Your task to perform on an android device: check the backup settings in the google photos Image 0: 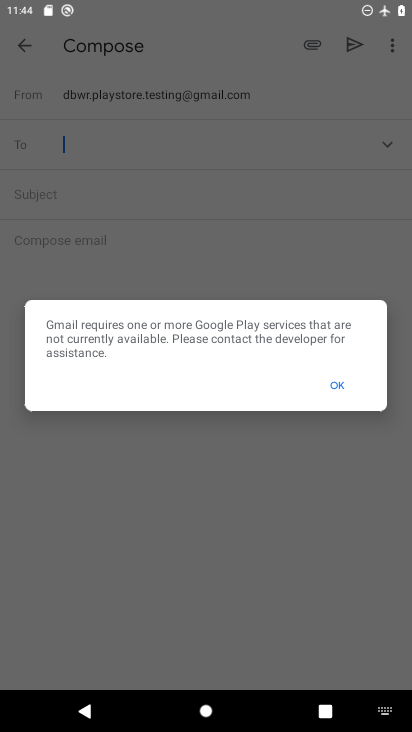
Step 0: press home button
Your task to perform on an android device: check the backup settings in the google photos Image 1: 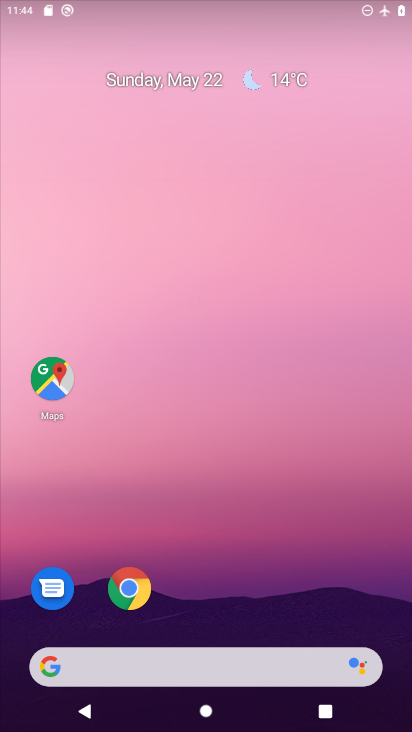
Step 1: drag from (248, 619) to (249, 188)
Your task to perform on an android device: check the backup settings in the google photos Image 2: 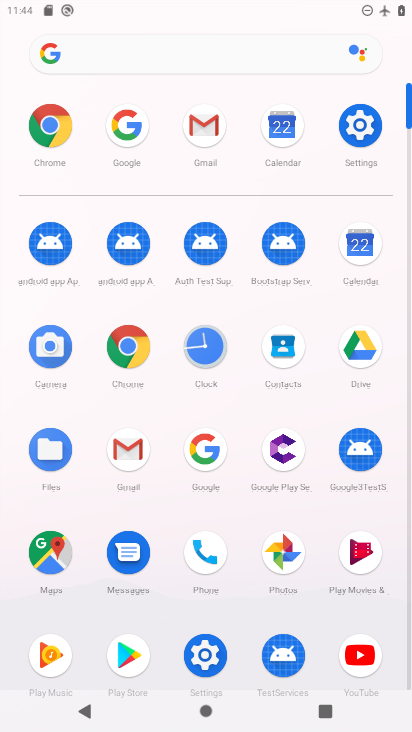
Step 2: click (280, 532)
Your task to perform on an android device: check the backup settings in the google photos Image 3: 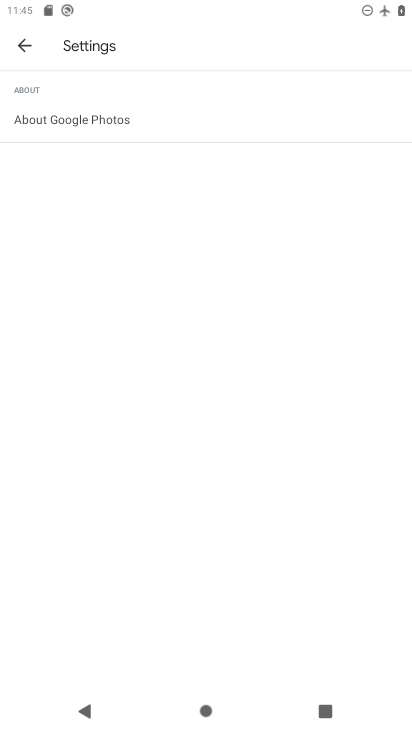
Step 3: click (28, 56)
Your task to perform on an android device: check the backup settings in the google photos Image 4: 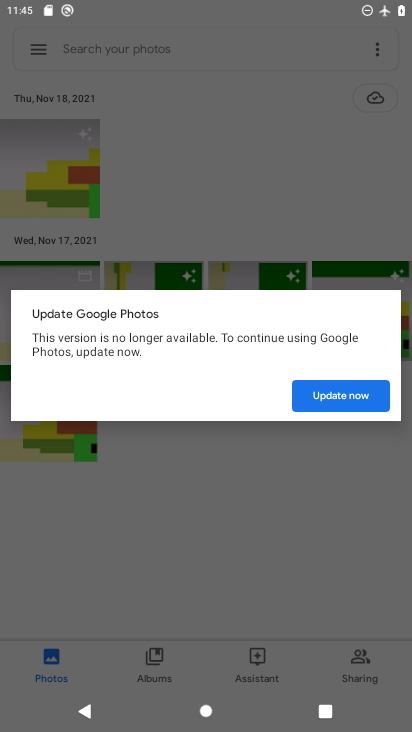
Step 4: click (306, 380)
Your task to perform on an android device: check the backup settings in the google photos Image 5: 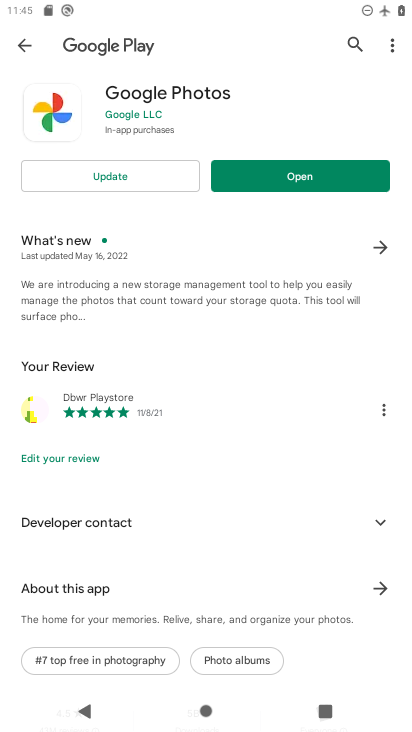
Step 5: click (248, 176)
Your task to perform on an android device: check the backup settings in the google photos Image 6: 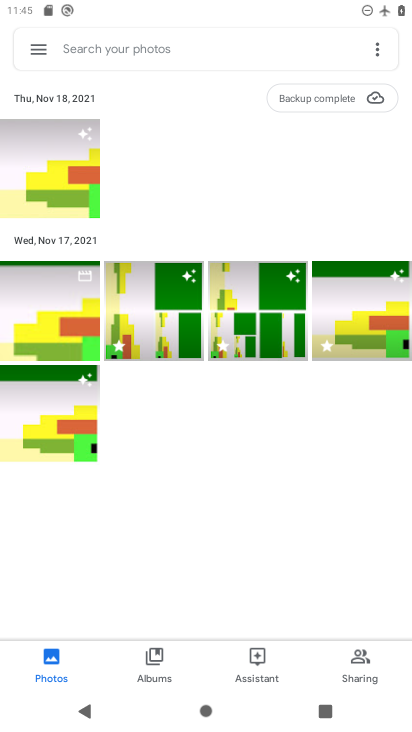
Step 6: click (37, 55)
Your task to perform on an android device: check the backup settings in the google photos Image 7: 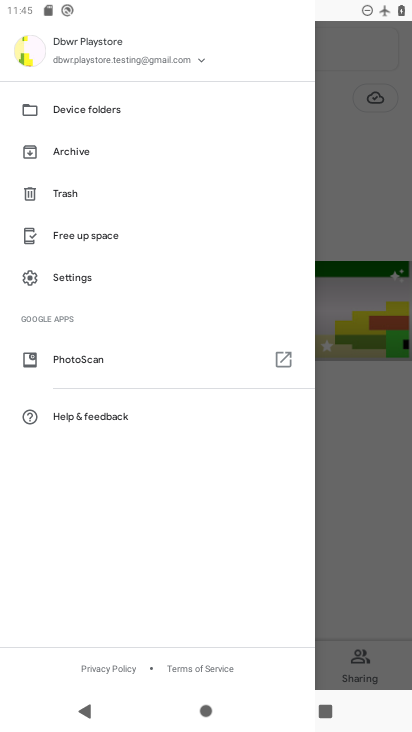
Step 7: click (103, 358)
Your task to perform on an android device: check the backup settings in the google photos Image 8: 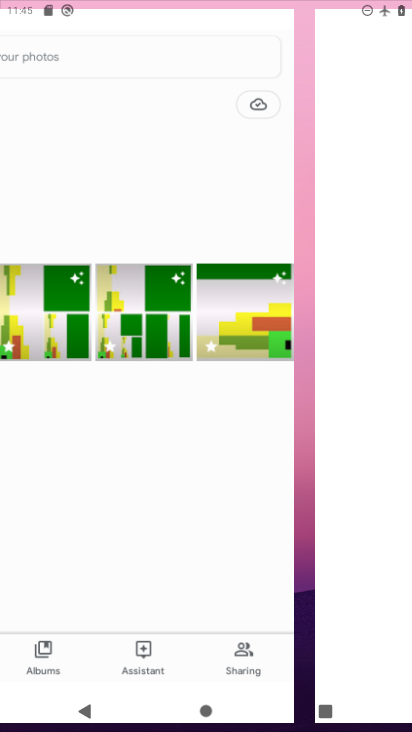
Step 8: drag from (114, 321) to (124, 284)
Your task to perform on an android device: check the backup settings in the google photos Image 9: 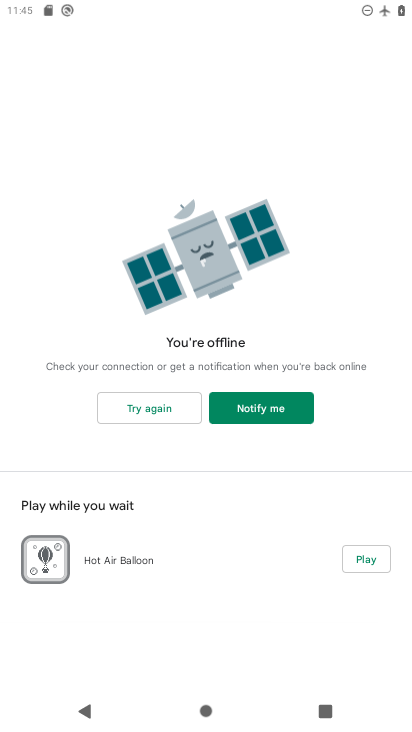
Step 9: press back button
Your task to perform on an android device: check the backup settings in the google photos Image 10: 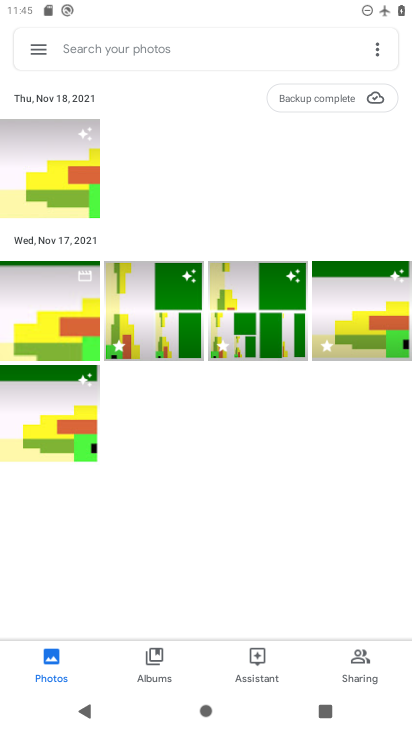
Step 10: click (36, 52)
Your task to perform on an android device: check the backup settings in the google photos Image 11: 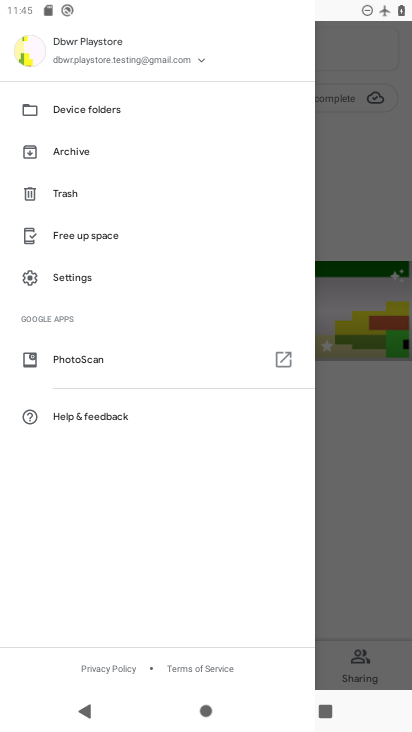
Step 11: click (111, 273)
Your task to perform on an android device: check the backup settings in the google photos Image 12: 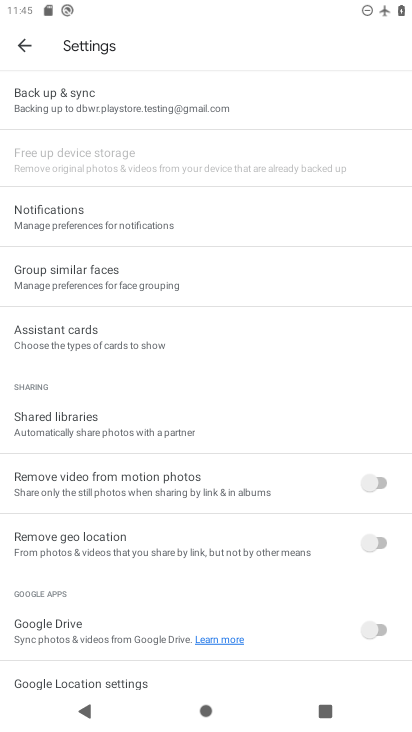
Step 12: click (123, 108)
Your task to perform on an android device: check the backup settings in the google photos Image 13: 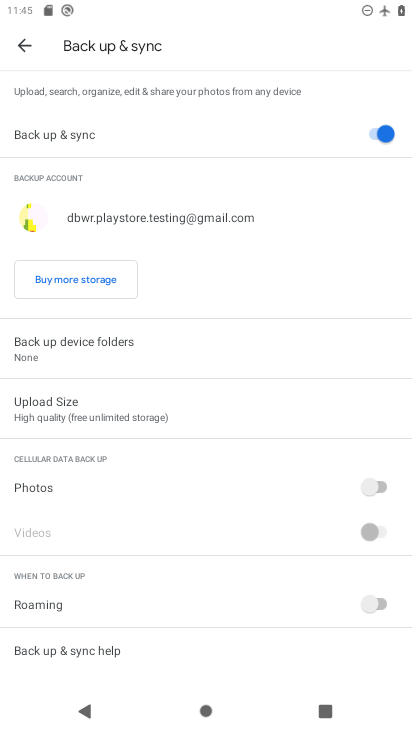
Step 13: task complete